Your task to perform on an android device: Open Google Maps and go to "Timeline" Image 0: 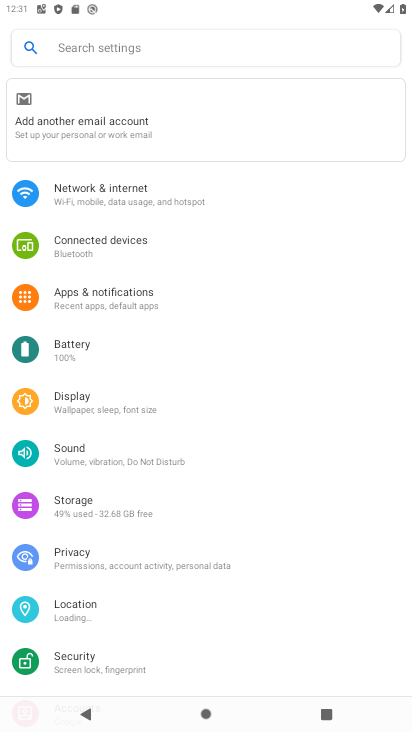
Step 0: press home button
Your task to perform on an android device: Open Google Maps and go to "Timeline" Image 1: 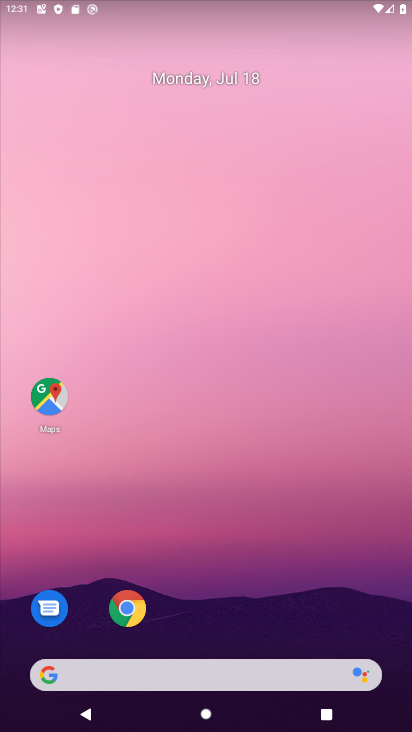
Step 1: click (55, 387)
Your task to perform on an android device: Open Google Maps and go to "Timeline" Image 2: 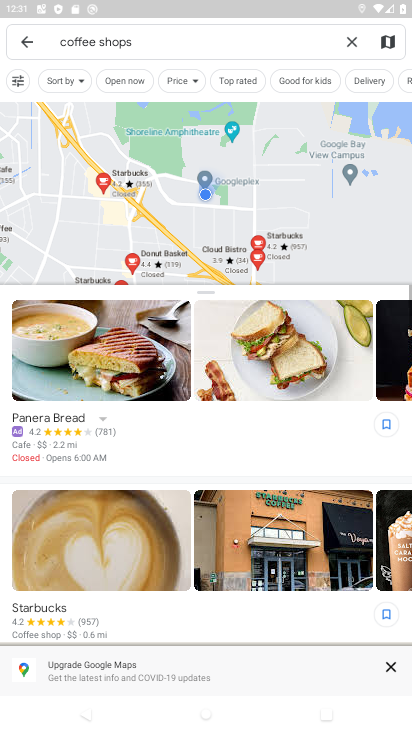
Step 2: click (25, 45)
Your task to perform on an android device: Open Google Maps and go to "Timeline" Image 3: 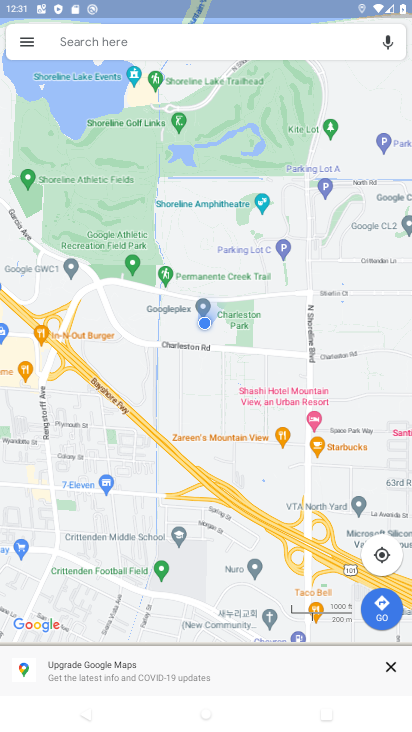
Step 3: click (25, 45)
Your task to perform on an android device: Open Google Maps and go to "Timeline" Image 4: 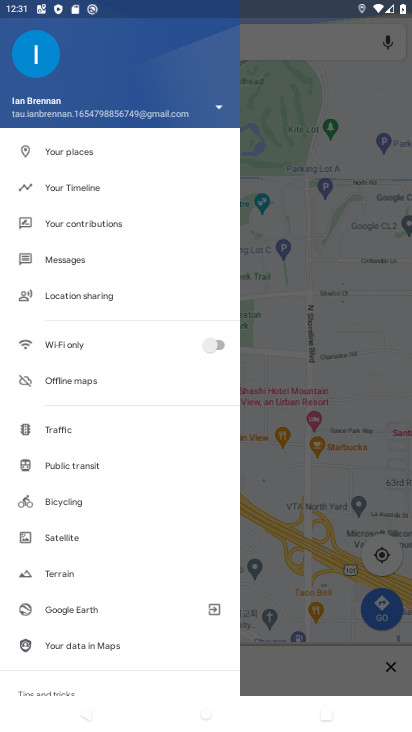
Step 4: click (94, 196)
Your task to perform on an android device: Open Google Maps and go to "Timeline" Image 5: 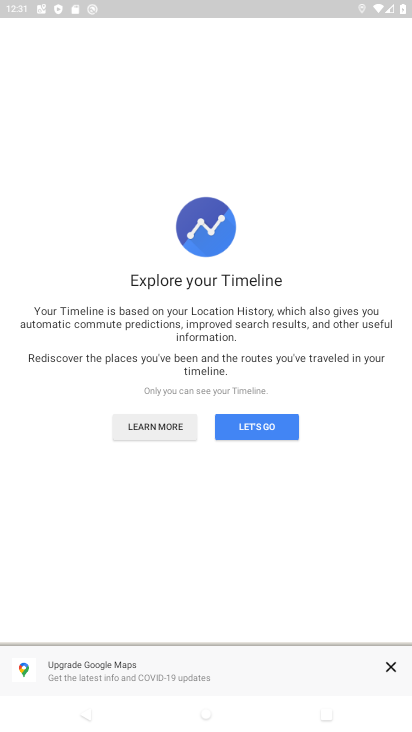
Step 5: click (258, 430)
Your task to perform on an android device: Open Google Maps and go to "Timeline" Image 6: 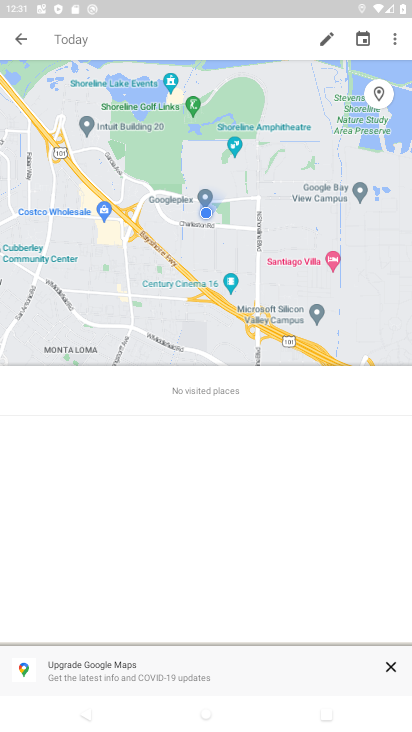
Step 6: task complete